Your task to perform on an android device: open wifi settings Image 0: 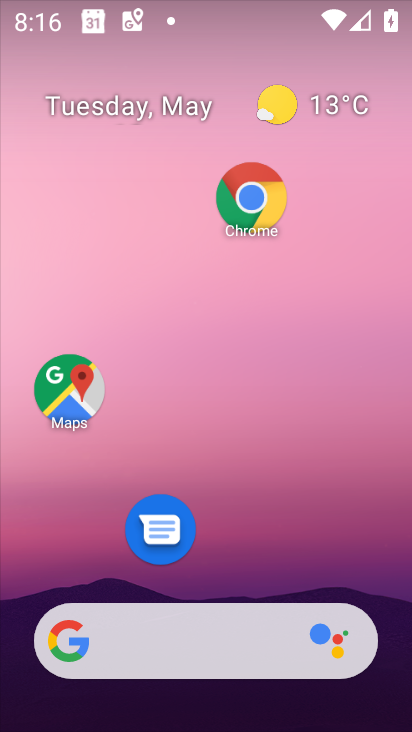
Step 0: drag from (314, 540) to (308, 114)
Your task to perform on an android device: open wifi settings Image 1: 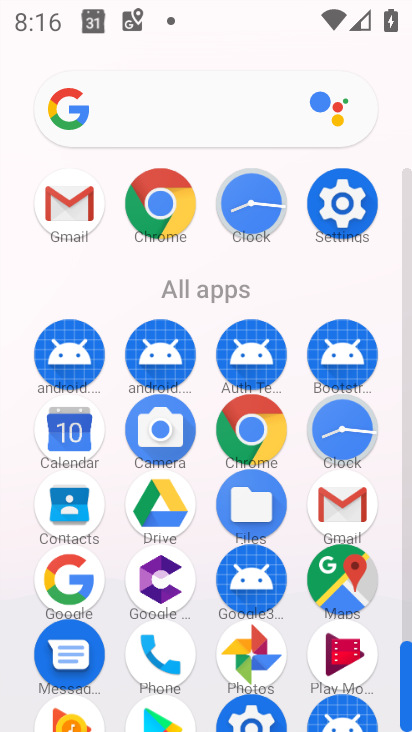
Step 1: click (339, 209)
Your task to perform on an android device: open wifi settings Image 2: 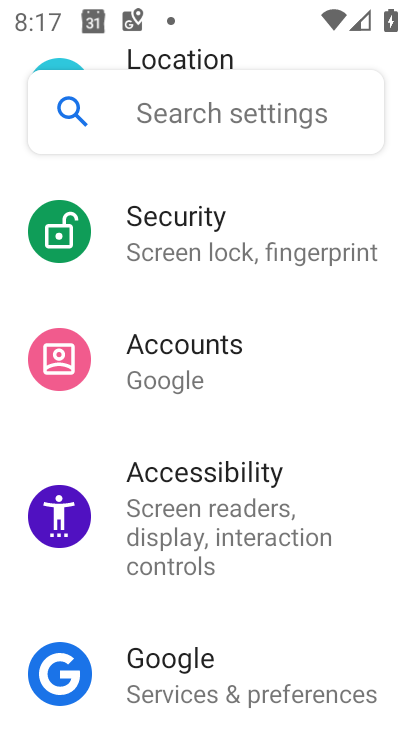
Step 2: drag from (297, 220) to (302, 708)
Your task to perform on an android device: open wifi settings Image 3: 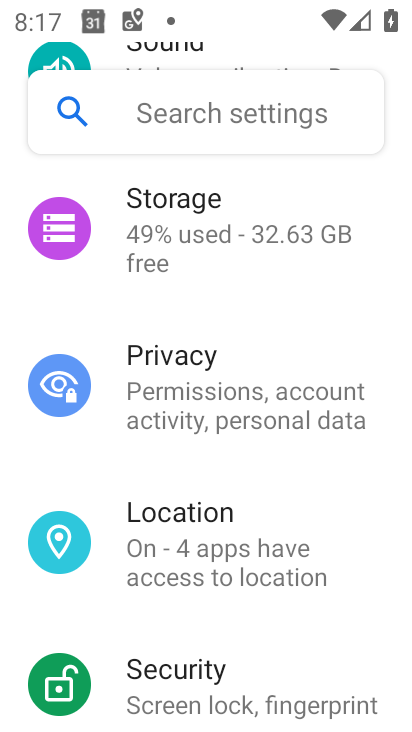
Step 3: drag from (282, 225) to (244, 725)
Your task to perform on an android device: open wifi settings Image 4: 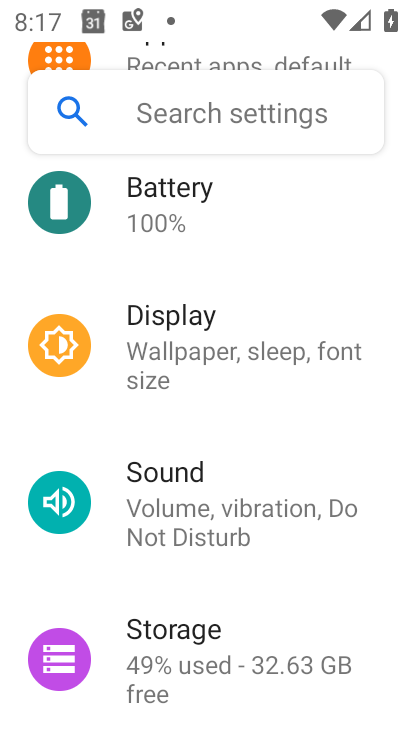
Step 4: drag from (253, 308) to (243, 593)
Your task to perform on an android device: open wifi settings Image 5: 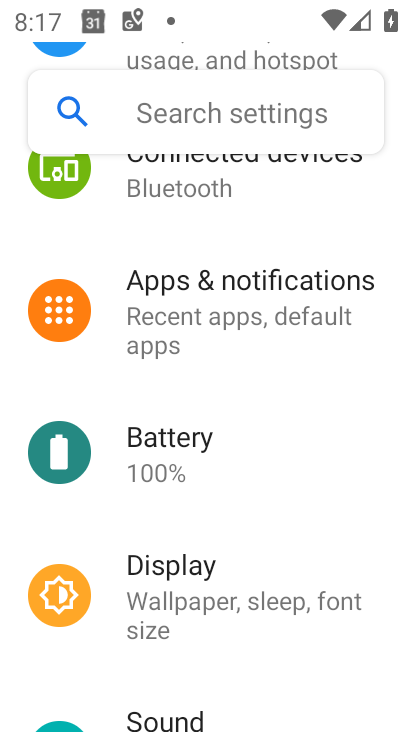
Step 5: drag from (225, 266) to (237, 714)
Your task to perform on an android device: open wifi settings Image 6: 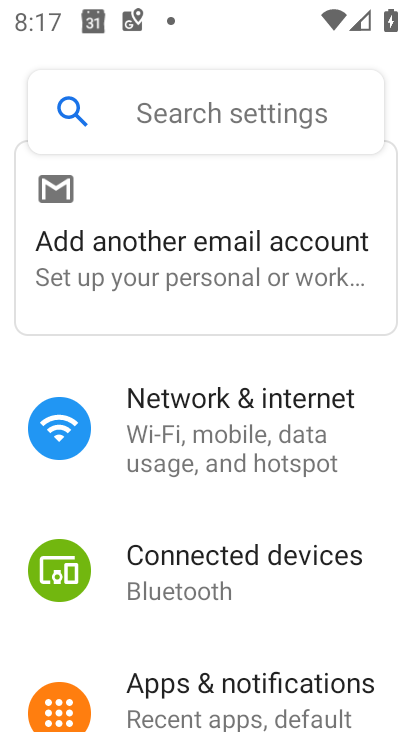
Step 6: click (234, 418)
Your task to perform on an android device: open wifi settings Image 7: 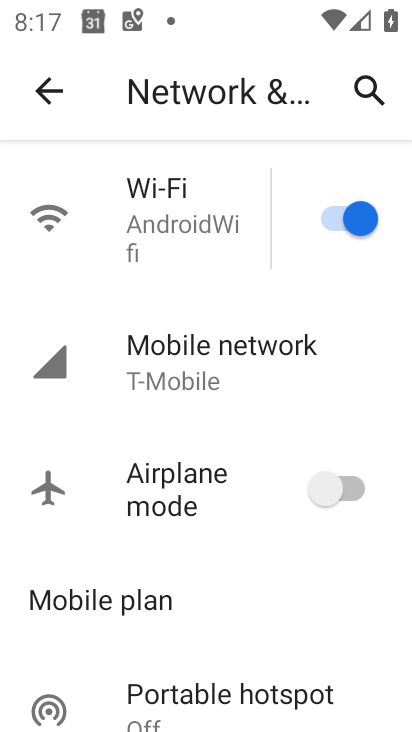
Step 7: click (182, 198)
Your task to perform on an android device: open wifi settings Image 8: 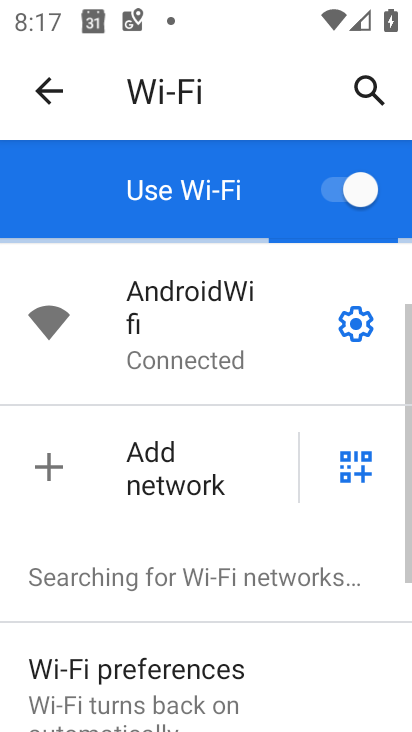
Step 8: task complete